Your task to perform on an android device: manage bookmarks in the chrome app Image 0: 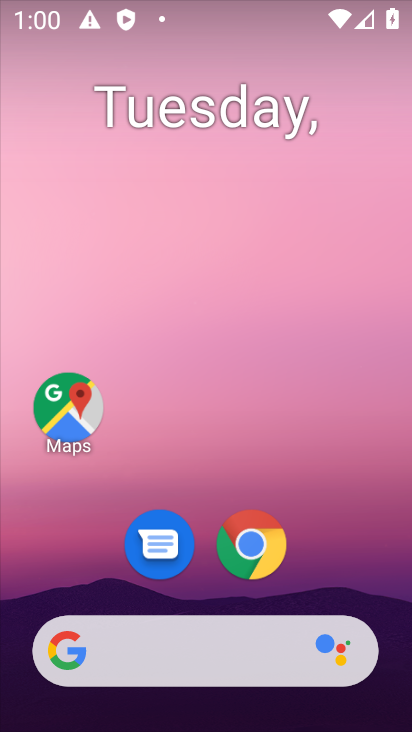
Step 0: drag from (353, 474) to (313, 0)
Your task to perform on an android device: manage bookmarks in the chrome app Image 1: 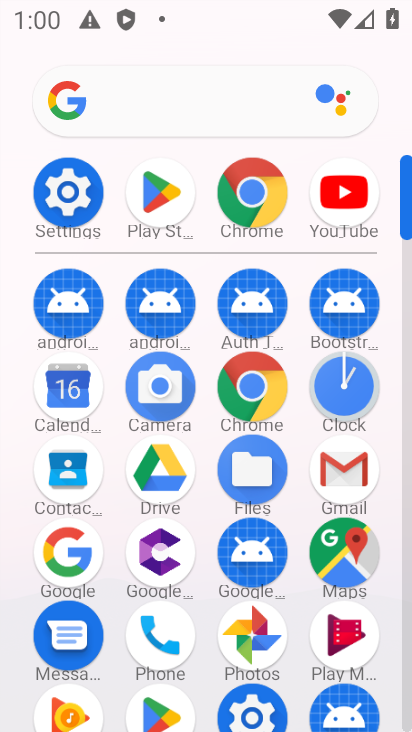
Step 1: click (251, 391)
Your task to perform on an android device: manage bookmarks in the chrome app Image 2: 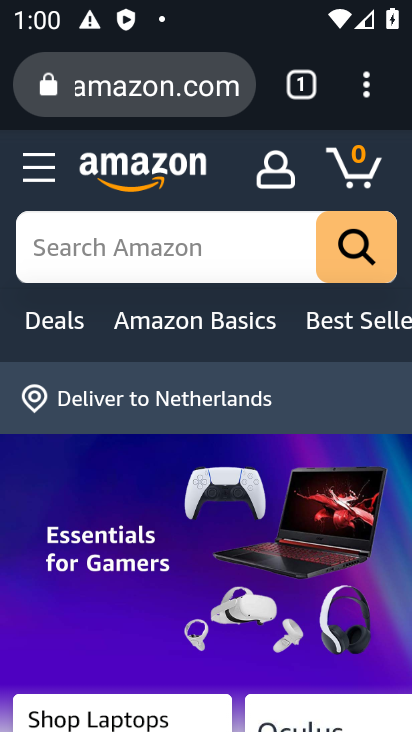
Step 2: drag from (387, 68) to (184, 339)
Your task to perform on an android device: manage bookmarks in the chrome app Image 3: 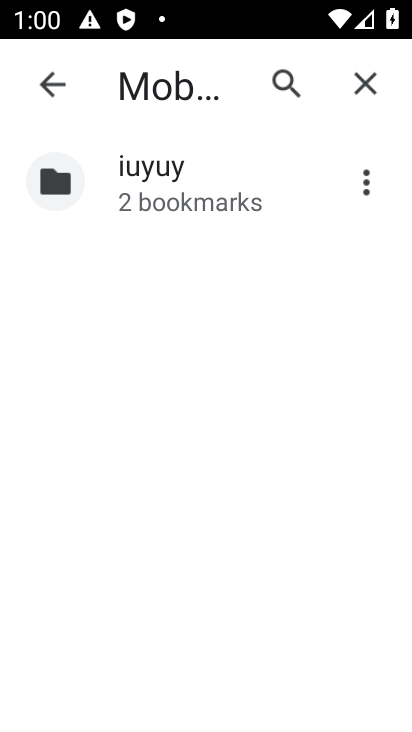
Step 3: click (255, 159)
Your task to perform on an android device: manage bookmarks in the chrome app Image 4: 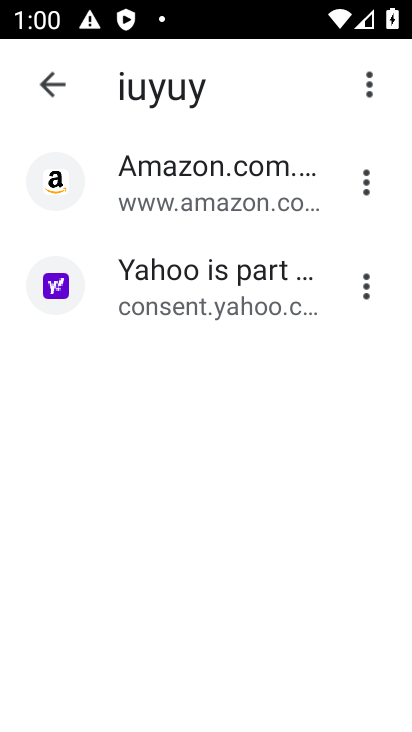
Step 4: click (364, 289)
Your task to perform on an android device: manage bookmarks in the chrome app Image 5: 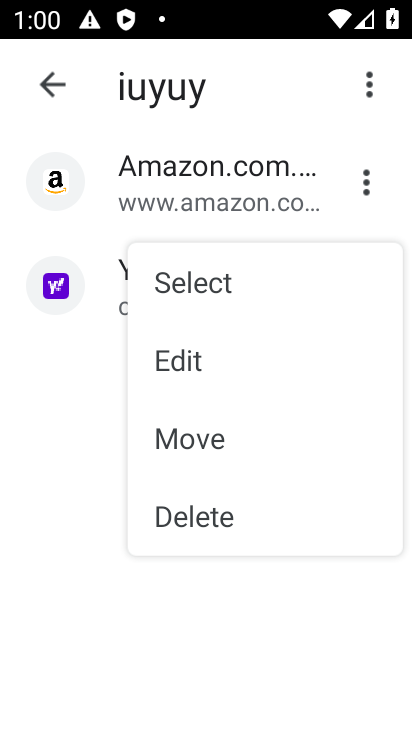
Step 5: click (228, 383)
Your task to perform on an android device: manage bookmarks in the chrome app Image 6: 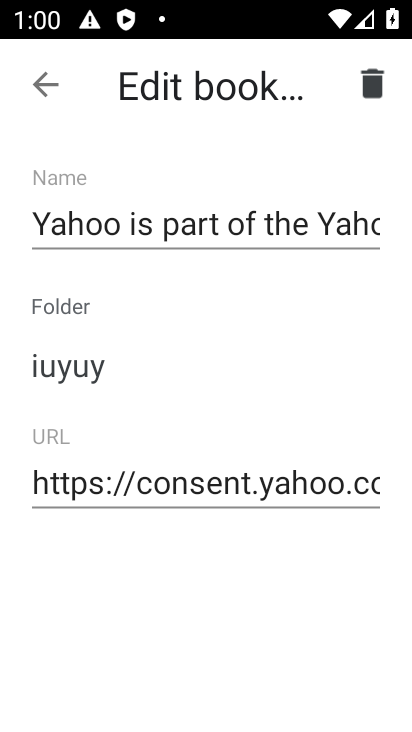
Step 6: click (153, 210)
Your task to perform on an android device: manage bookmarks in the chrome app Image 7: 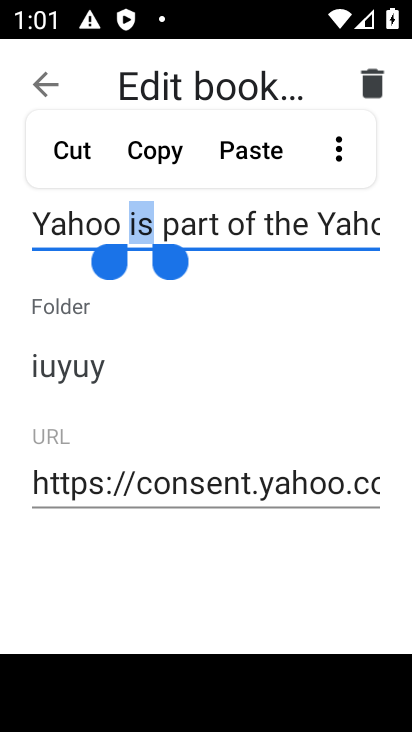
Step 7: type "k"
Your task to perform on an android device: manage bookmarks in the chrome app Image 8: 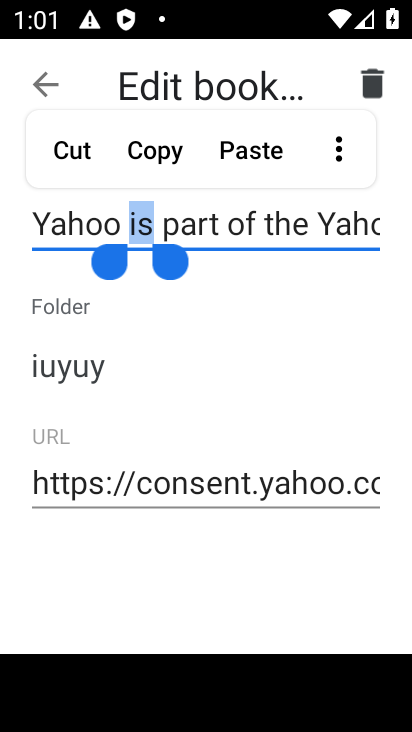
Step 8: click (85, 153)
Your task to perform on an android device: manage bookmarks in the chrome app Image 9: 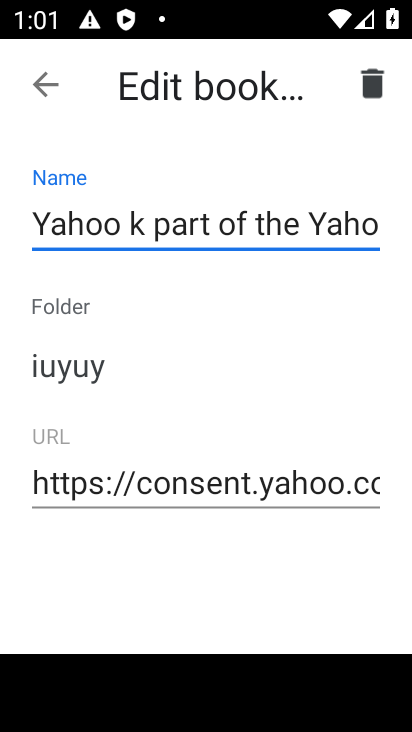
Step 9: click (46, 79)
Your task to perform on an android device: manage bookmarks in the chrome app Image 10: 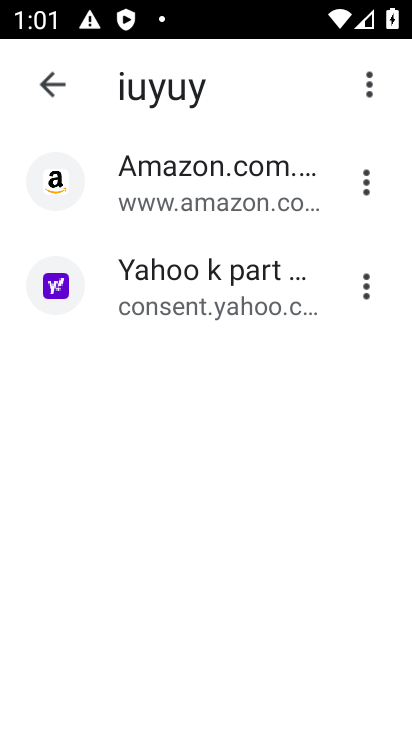
Step 10: task complete